Your task to perform on an android device: turn on bluetooth scan Image 0: 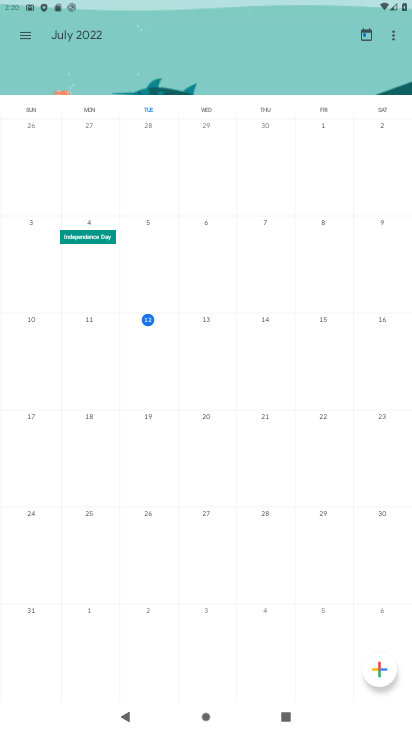
Step 0: press home button
Your task to perform on an android device: turn on bluetooth scan Image 1: 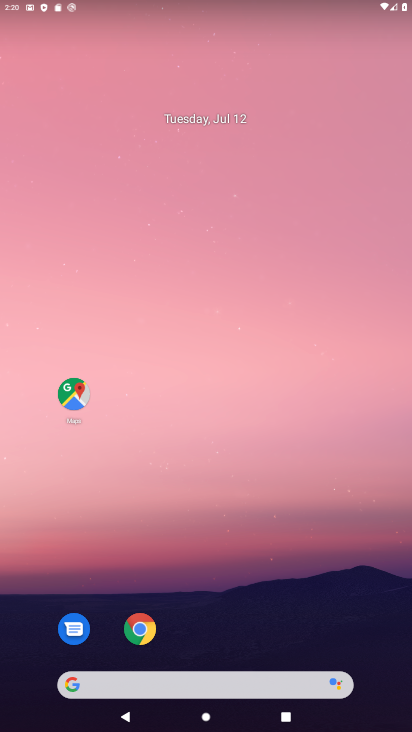
Step 1: drag from (187, 684) to (227, 201)
Your task to perform on an android device: turn on bluetooth scan Image 2: 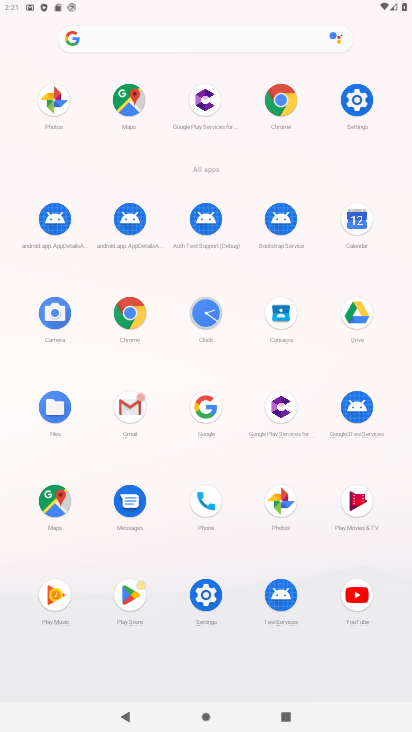
Step 2: click (359, 98)
Your task to perform on an android device: turn on bluetooth scan Image 3: 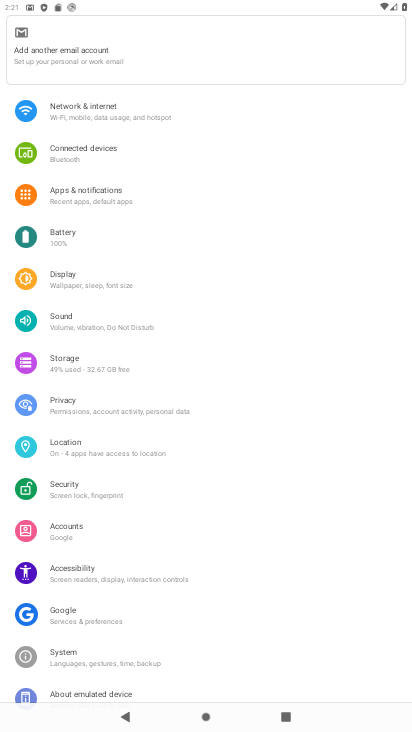
Step 3: click (66, 449)
Your task to perform on an android device: turn on bluetooth scan Image 4: 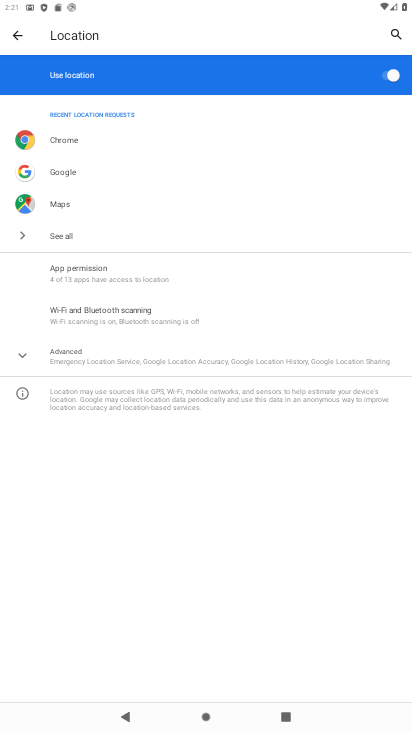
Step 4: click (140, 318)
Your task to perform on an android device: turn on bluetooth scan Image 5: 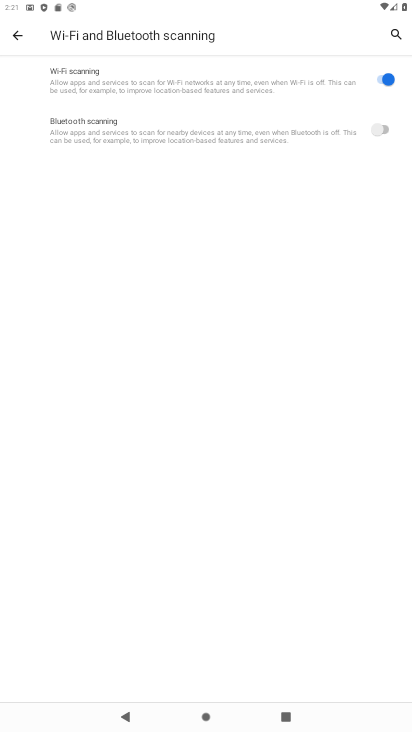
Step 5: click (379, 131)
Your task to perform on an android device: turn on bluetooth scan Image 6: 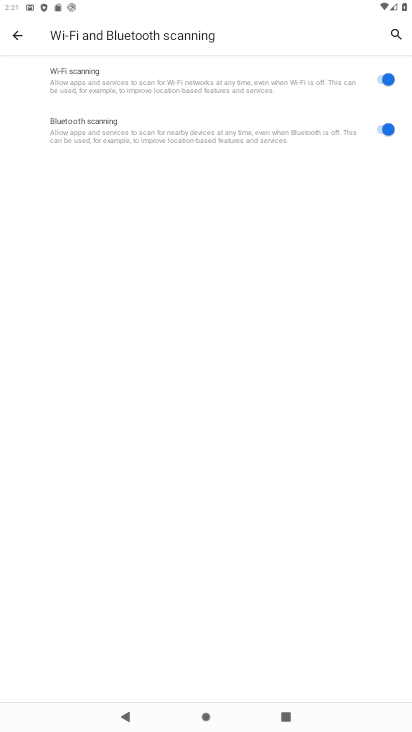
Step 6: task complete